Your task to perform on an android device: change timer sound Image 0: 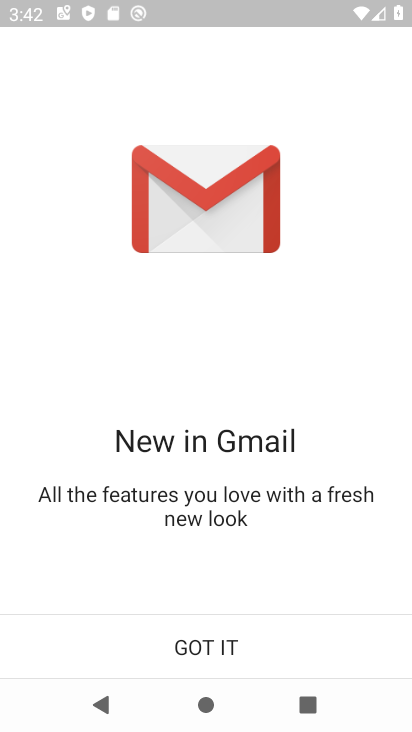
Step 0: press home button
Your task to perform on an android device: change timer sound Image 1: 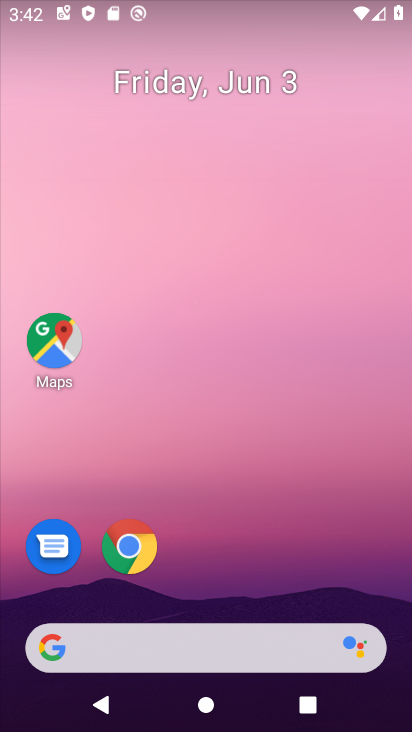
Step 1: drag from (202, 587) to (233, 89)
Your task to perform on an android device: change timer sound Image 2: 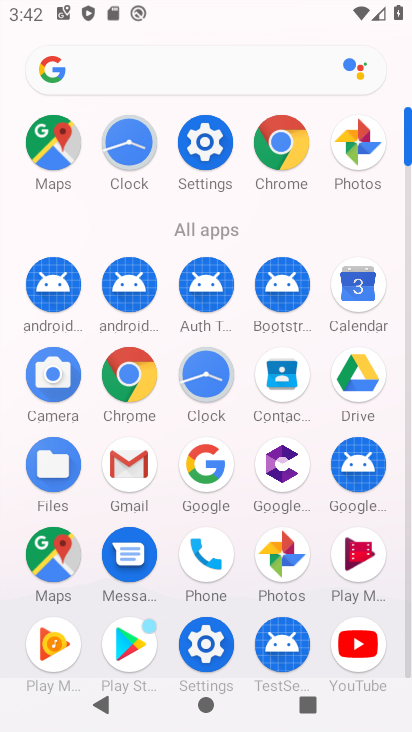
Step 2: click (136, 140)
Your task to perform on an android device: change timer sound Image 3: 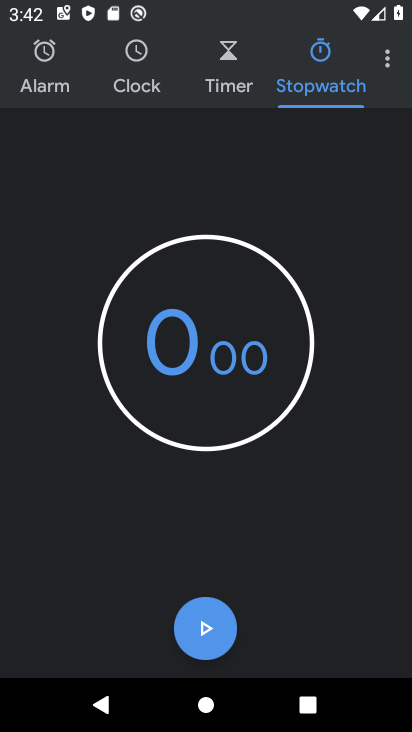
Step 3: click (385, 71)
Your task to perform on an android device: change timer sound Image 4: 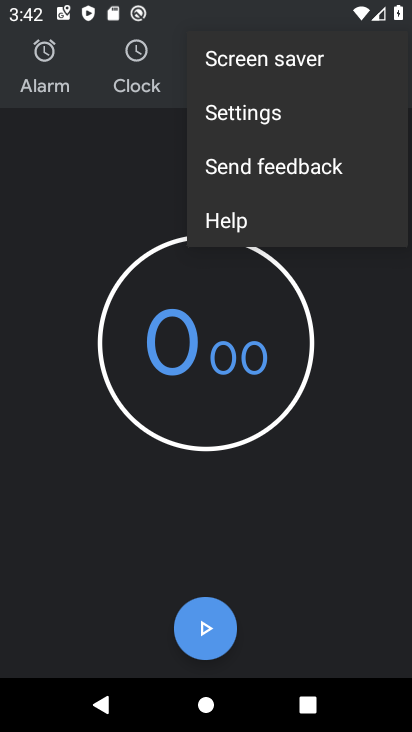
Step 4: click (316, 125)
Your task to perform on an android device: change timer sound Image 5: 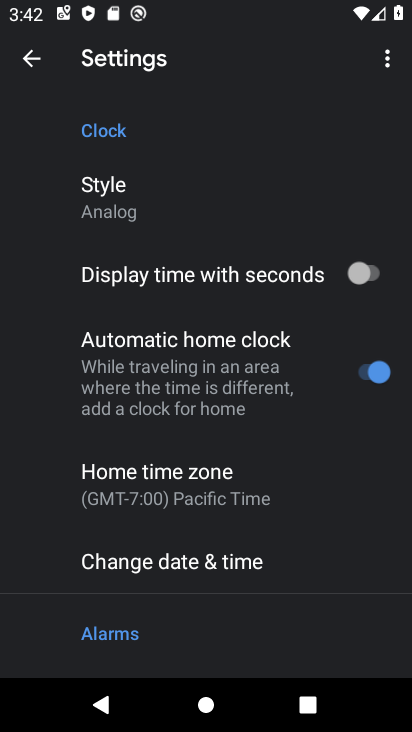
Step 5: drag from (285, 471) to (258, 0)
Your task to perform on an android device: change timer sound Image 6: 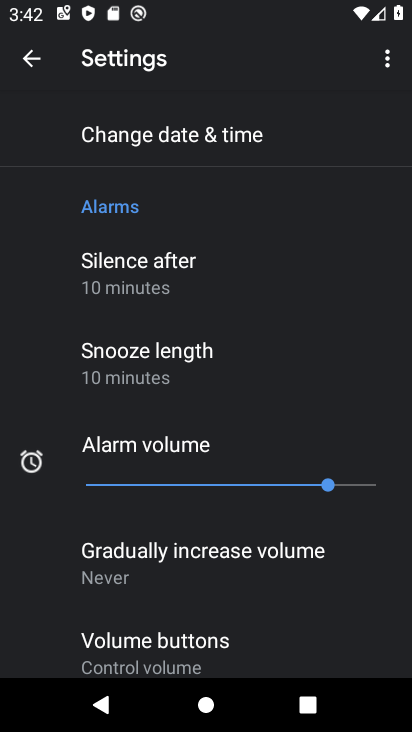
Step 6: drag from (222, 591) to (247, 73)
Your task to perform on an android device: change timer sound Image 7: 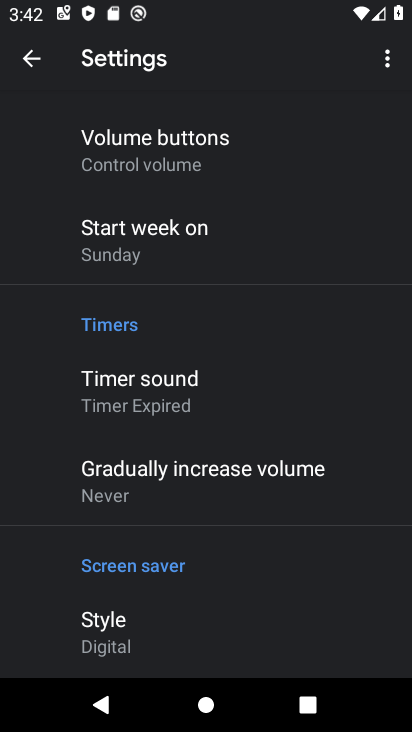
Step 7: click (176, 391)
Your task to perform on an android device: change timer sound Image 8: 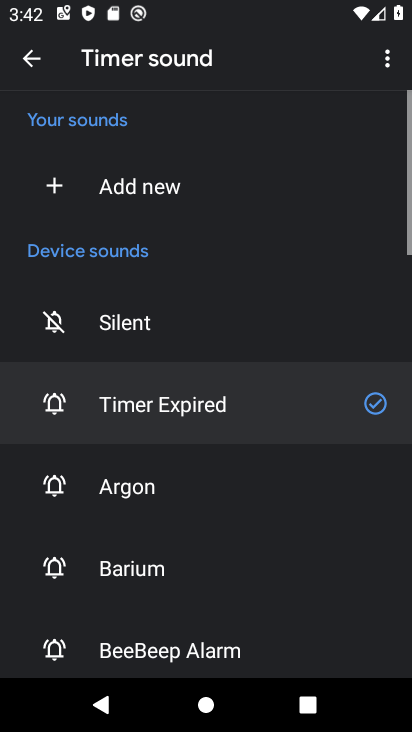
Step 8: click (158, 507)
Your task to perform on an android device: change timer sound Image 9: 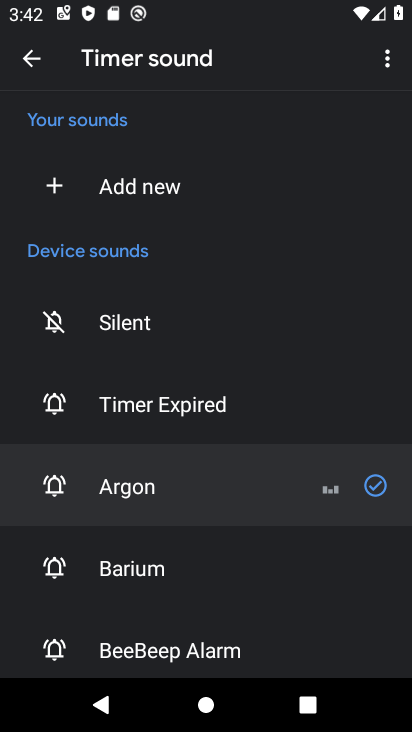
Step 9: task complete